Your task to perform on an android device: Search for "dell xps" on target.com, select the first entry, and add it to the cart. Image 0: 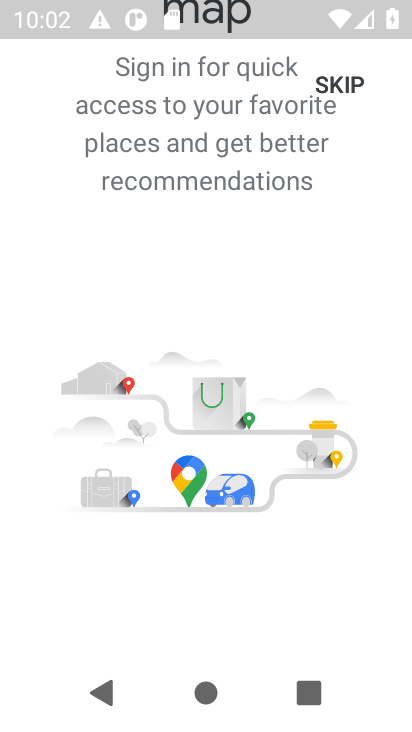
Step 0: press home button
Your task to perform on an android device: Search for "dell xps" on target.com, select the first entry, and add it to the cart. Image 1: 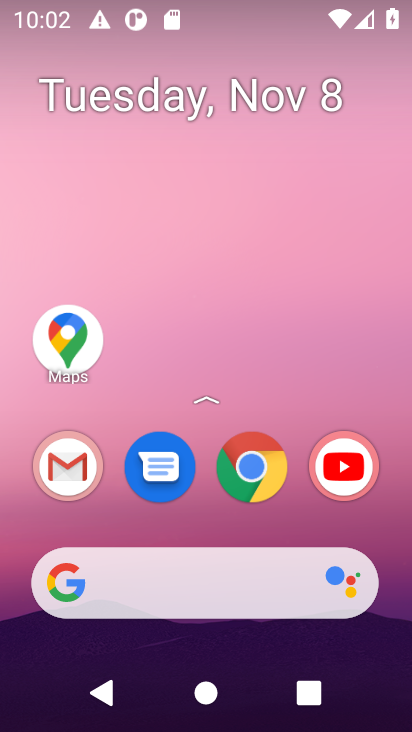
Step 1: click (180, 578)
Your task to perform on an android device: Search for "dell xps" on target.com, select the first entry, and add it to the cart. Image 2: 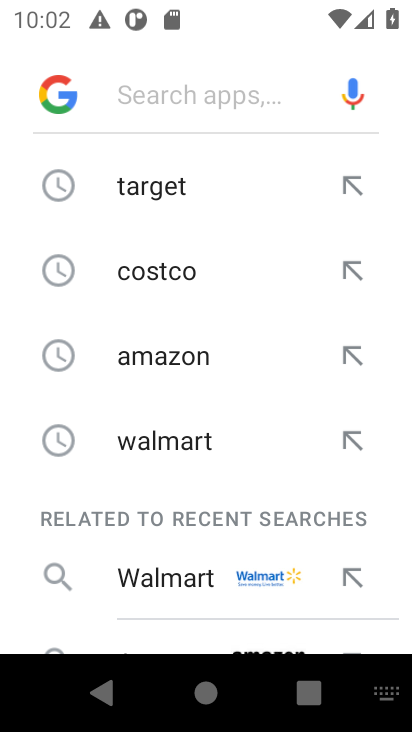
Step 2: click (203, 196)
Your task to perform on an android device: Search for "dell xps" on target.com, select the first entry, and add it to the cart. Image 3: 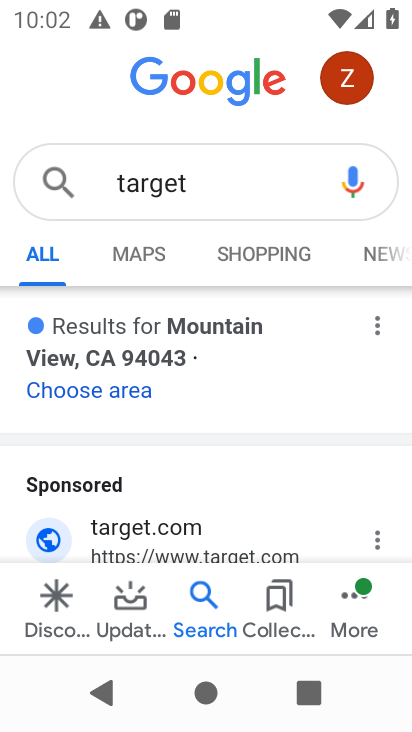
Step 3: click (155, 530)
Your task to perform on an android device: Search for "dell xps" on target.com, select the first entry, and add it to the cart. Image 4: 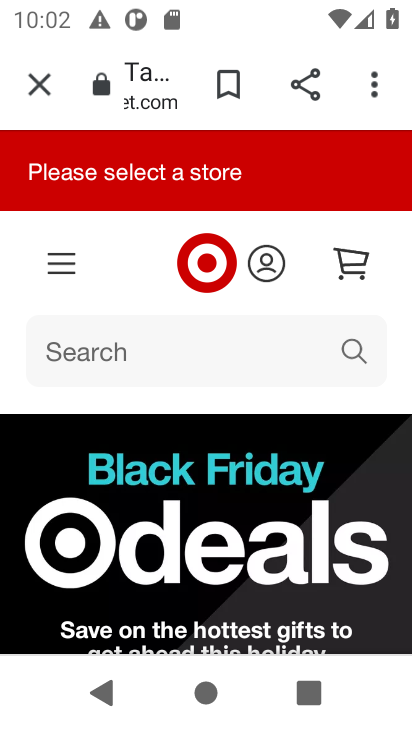
Step 4: task complete